Your task to perform on an android device: Show the shopping cart on amazon. Search for "logitech g903" on amazon, select the first entry, add it to the cart, then select checkout. Image 0: 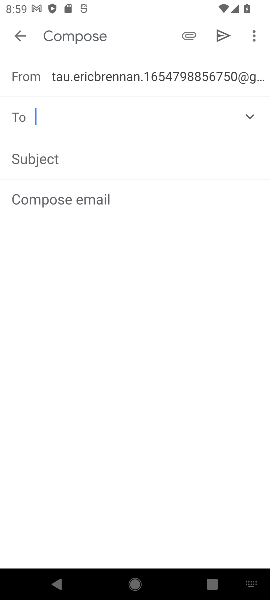
Step 0: press home button
Your task to perform on an android device: Show the shopping cart on amazon. Search for "logitech g903" on amazon, select the first entry, add it to the cart, then select checkout. Image 1: 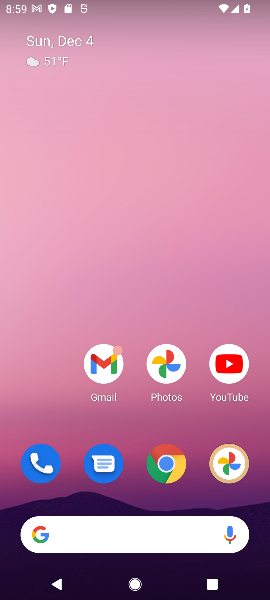
Step 1: click (125, 535)
Your task to perform on an android device: Show the shopping cart on amazon. Search for "logitech g903" on amazon, select the first entry, add it to the cart, then select checkout. Image 2: 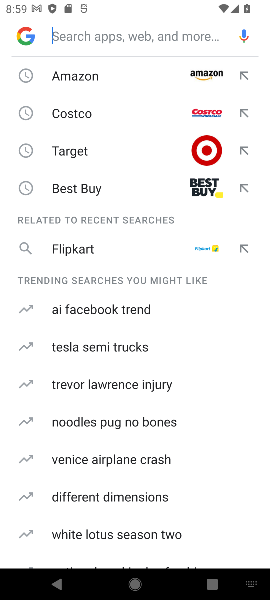
Step 2: type "logitech g903"
Your task to perform on an android device: Show the shopping cart on amazon. Search for "logitech g903" on amazon, select the first entry, add it to the cart, then select checkout. Image 3: 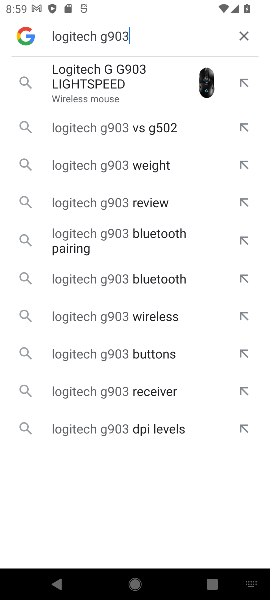
Step 3: click (98, 101)
Your task to perform on an android device: Show the shopping cart on amazon. Search for "logitech g903" on amazon, select the first entry, add it to the cart, then select checkout. Image 4: 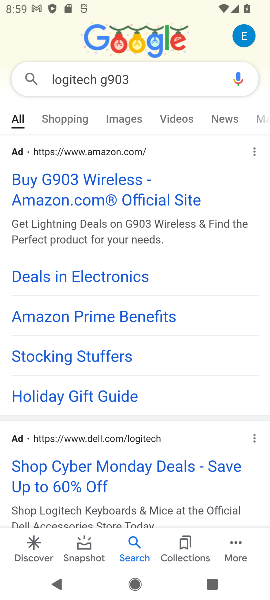
Step 4: click (97, 189)
Your task to perform on an android device: Show the shopping cart on amazon. Search for "logitech g903" on amazon, select the first entry, add it to the cart, then select checkout. Image 5: 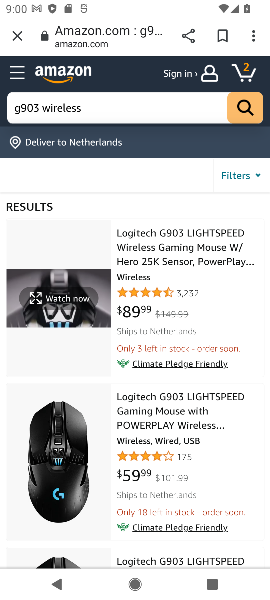
Step 5: click (148, 237)
Your task to perform on an android device: Show the shopping cart on amazon. Search for "logitech g903" on amazon, select the first entry, add it to the cart, then select checkout. Image 6: 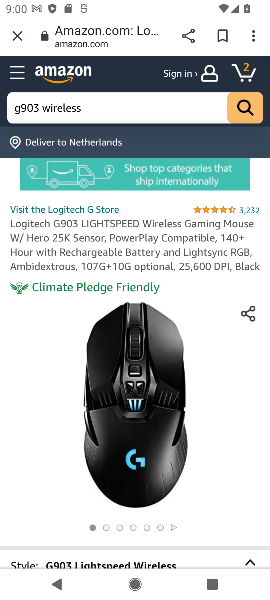
Step 6: task complete